Your task to perform on an android device: empty trash in the gmail app Image 0: 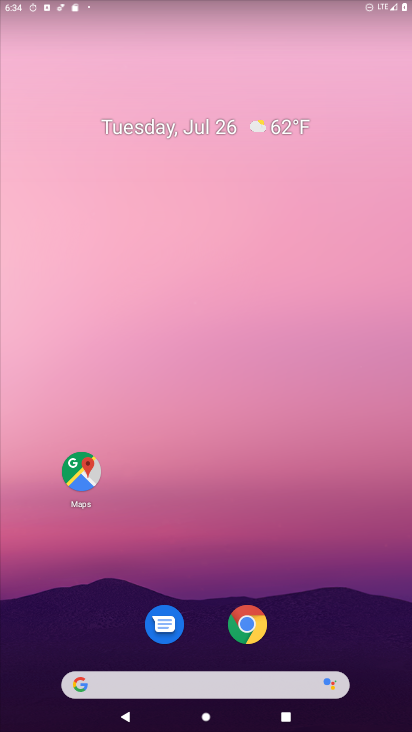
Step 0: drag from (250, 697) to (355, 55)
Your task to perform on an android device: empty trash in the gmail app Image 1: 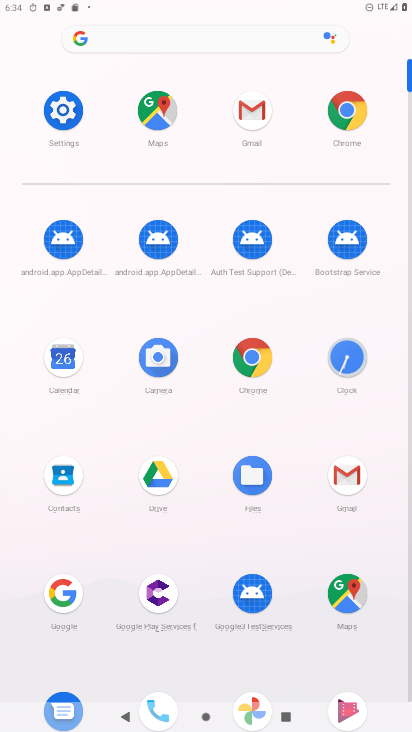
Step 1: click (348, 482)
Your task to perform on an android device: empty trash in the gmail app Image 2: 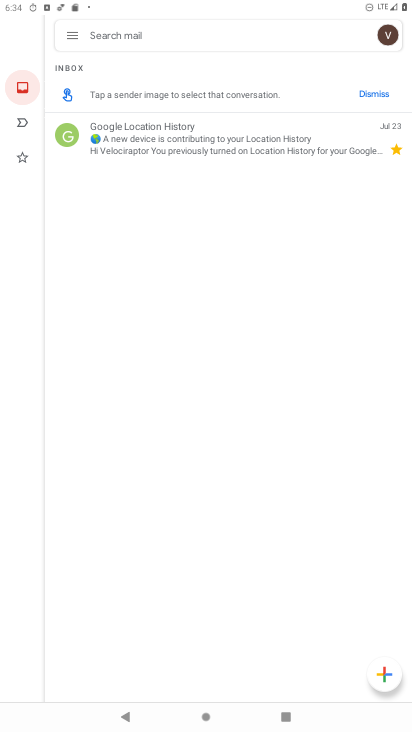
Step 2: click (78, 35)
Your task to perform on an android device: empty trash in the gmail app Image 3: 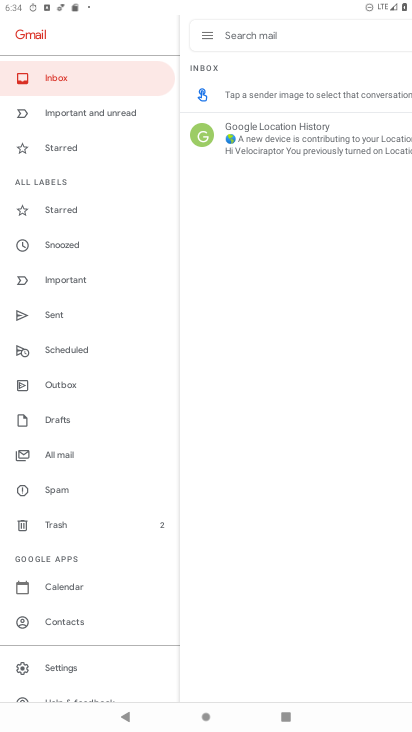
Step 3: click (79, 533)
Your task to perform on an android device: empty trash in the gmail app Image 4: 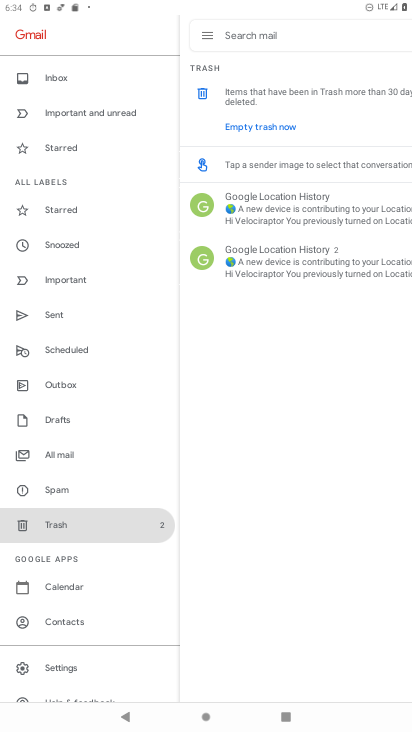
Step 4: click (209, 95)
Your task to perform on an android device: empty trash in the gmail app Image 5: 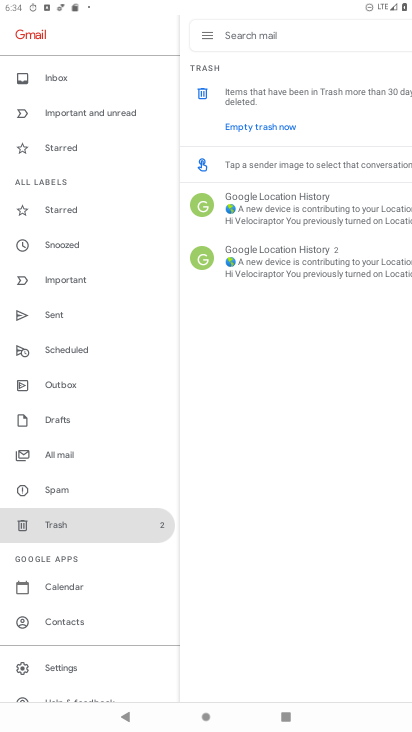
Step 5: click (246, 123)
Your task to perform on an android device: empty trash in the gmail app Image 6: 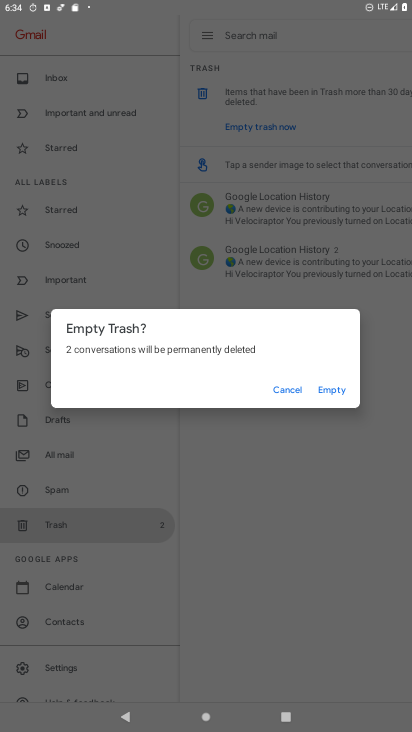
Step 6: click (336, 393)
Your task to perform on an android device: empty trash in the gmail app Image 7: 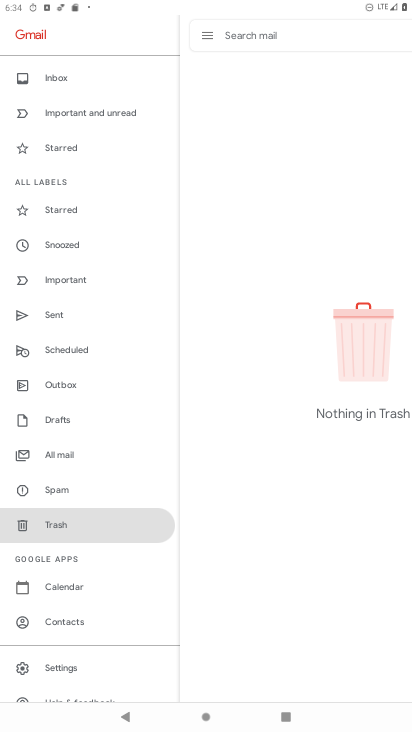
Step 7: task complete